Your task to perform on an android device: toggle location history Image 0: 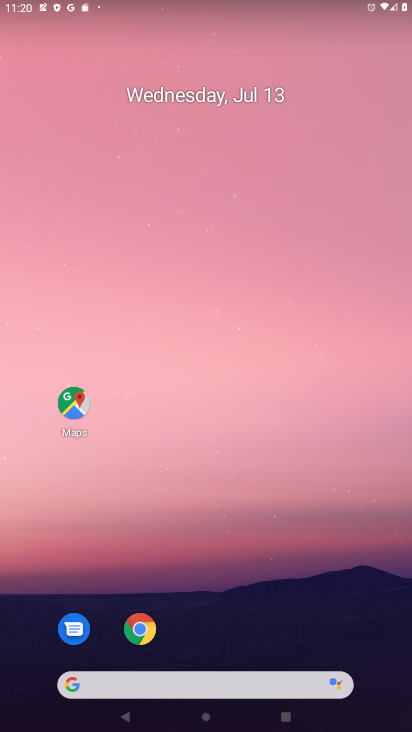
Step 0: drag from (317, 599) to (236, 226)
Your task to perform on an android device: toggle location history Image 1: 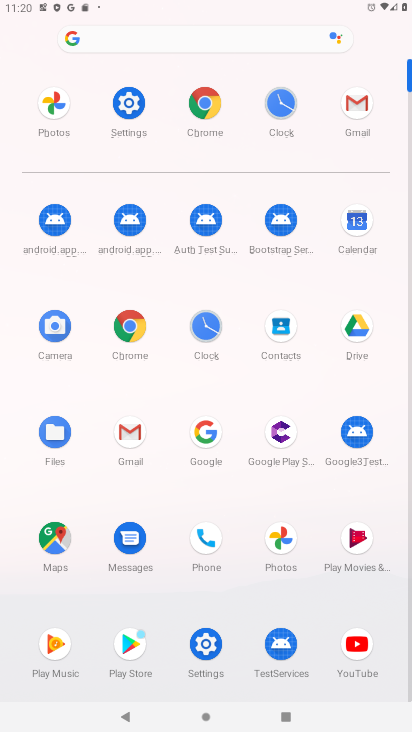
Step 1: click (197, 653)
Your task to perform on an android device: toggle location history Image 2: 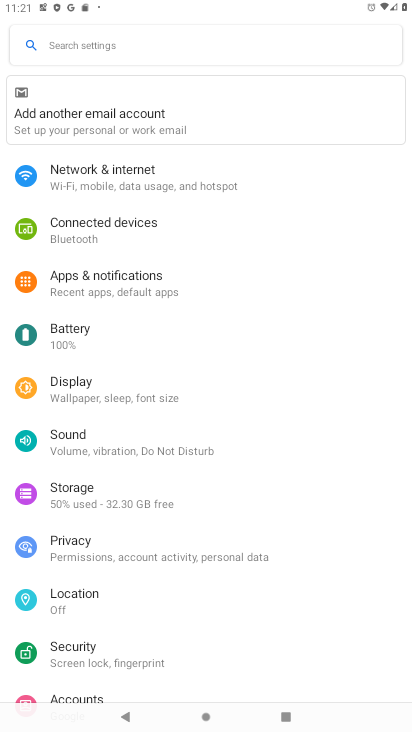
Step 2: click (72, 600)
Your task to perform on an android device: toggle location history Image 3: 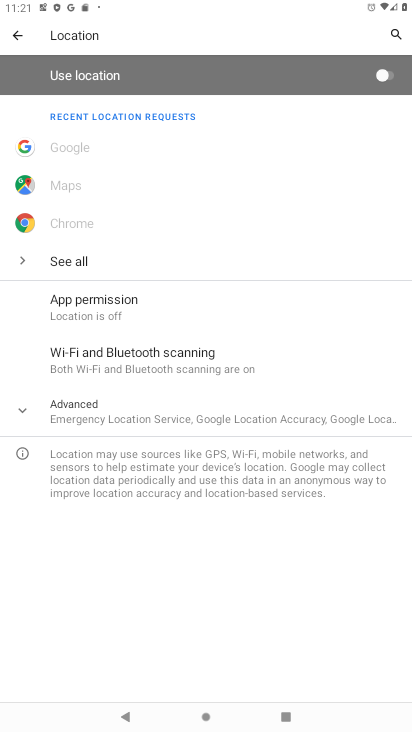
Step 3: click (154, 397)
Your task to perform on an android device: toggle location history Image 4: 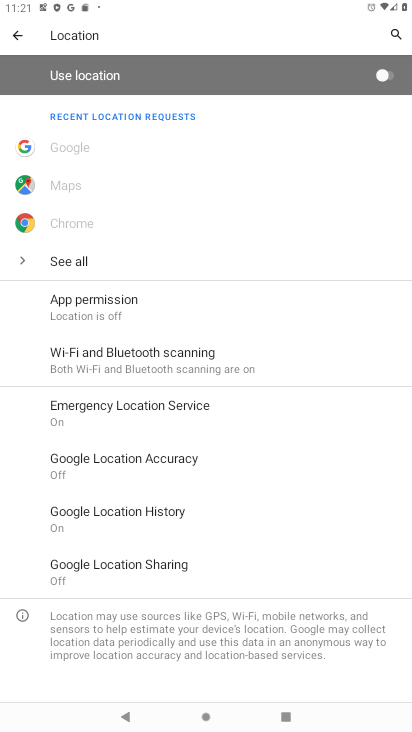
Step 4: click (144, 506)
Your task to perform on an android device: toggle location history Image 5: 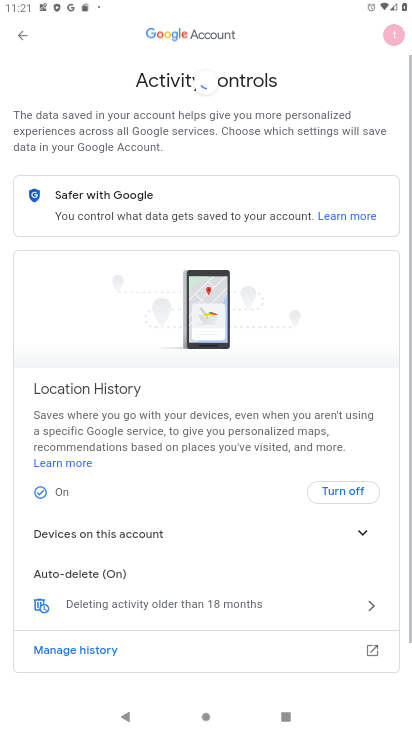
Step 5: task complete